Your task to perform on an android device: Search for the new iphone 13 pro on Etsy. Image 0: 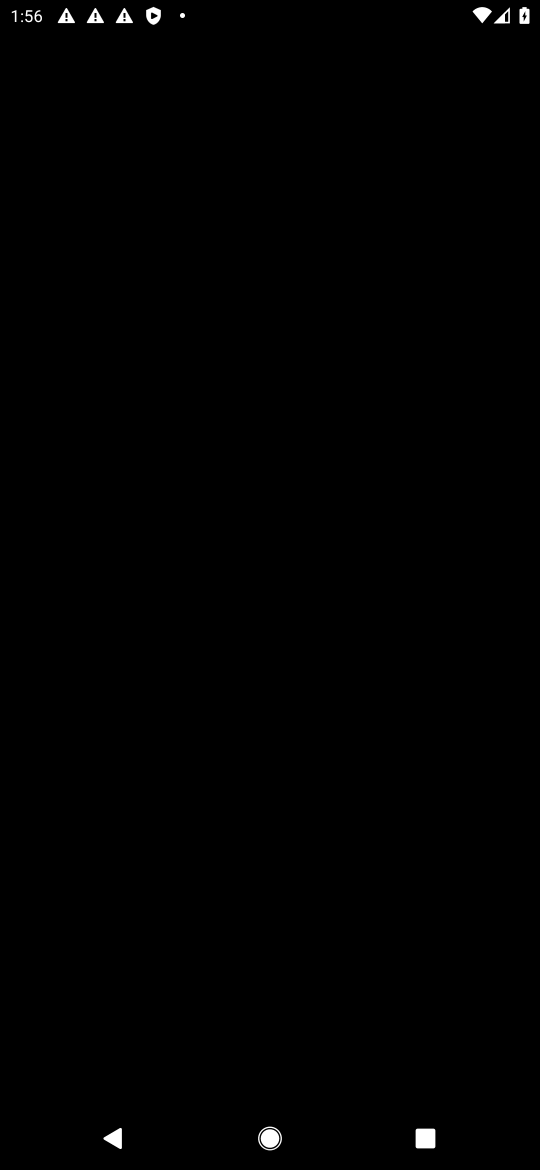
Step 0: press home button
Your task to perform on an android device: Search for the new iphone 13 pro on Etsy. Image 1: 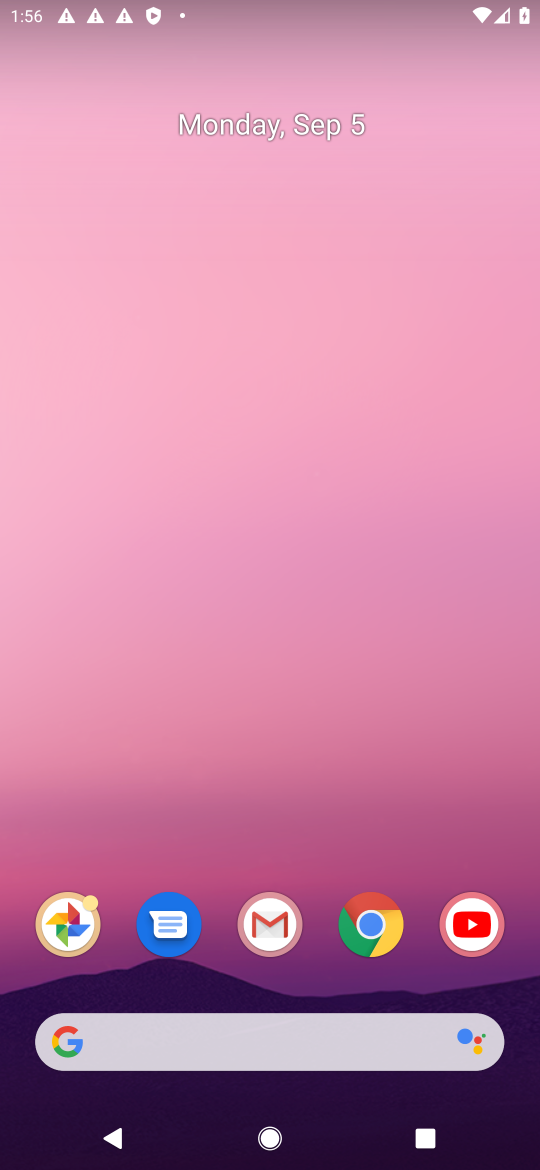
Step 1: click (372, 952)
Your task to perform on an android device: Search for the new iphone 13 pro on Etsy. Image 2: 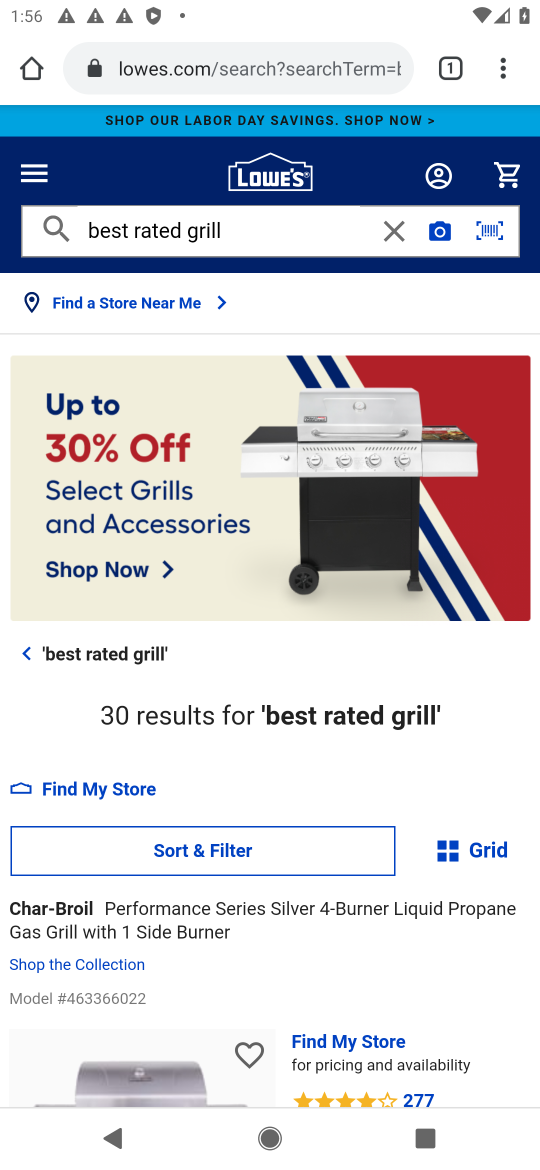
Step 2: click (377, 61)
Your task to perform on an android device: Search for the new iphone 13 pro on Etsy. Image 3: 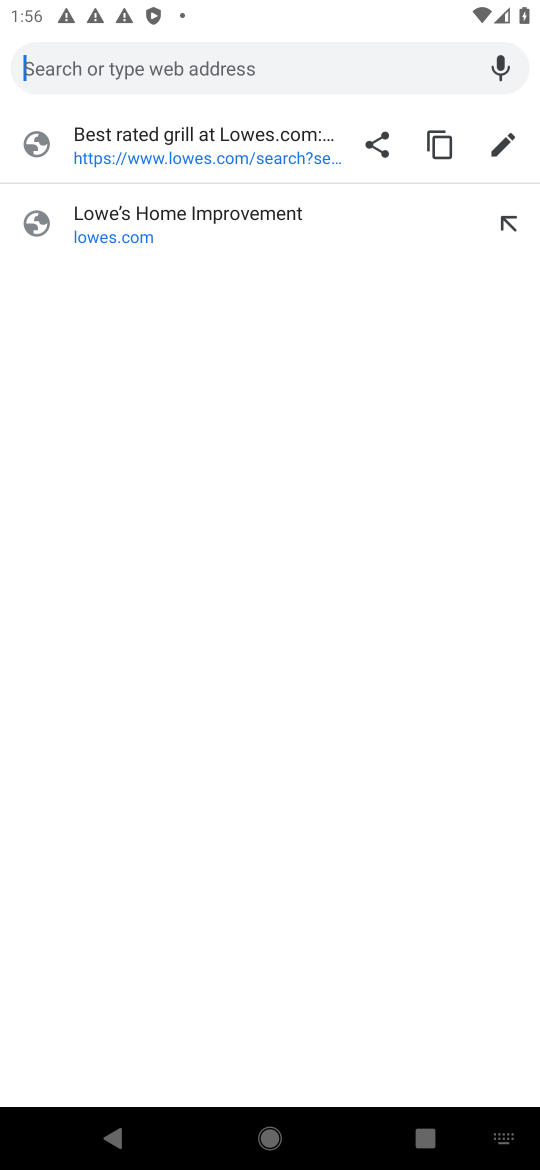
Step 3: type "Etsy"
Your task to perform on an android device: Search for the new iphone 13 pro on Etsy. Image 4: 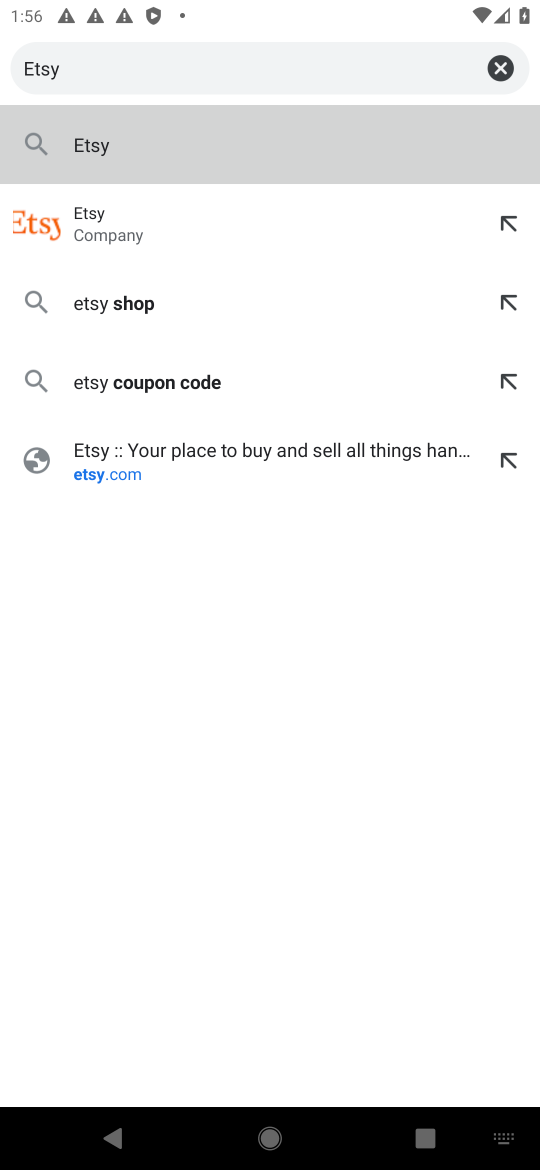
Step 4: click (54, 243)
Your task to perform on an android device: Search for the new iphone 13 pro on Etsy. Image 5: 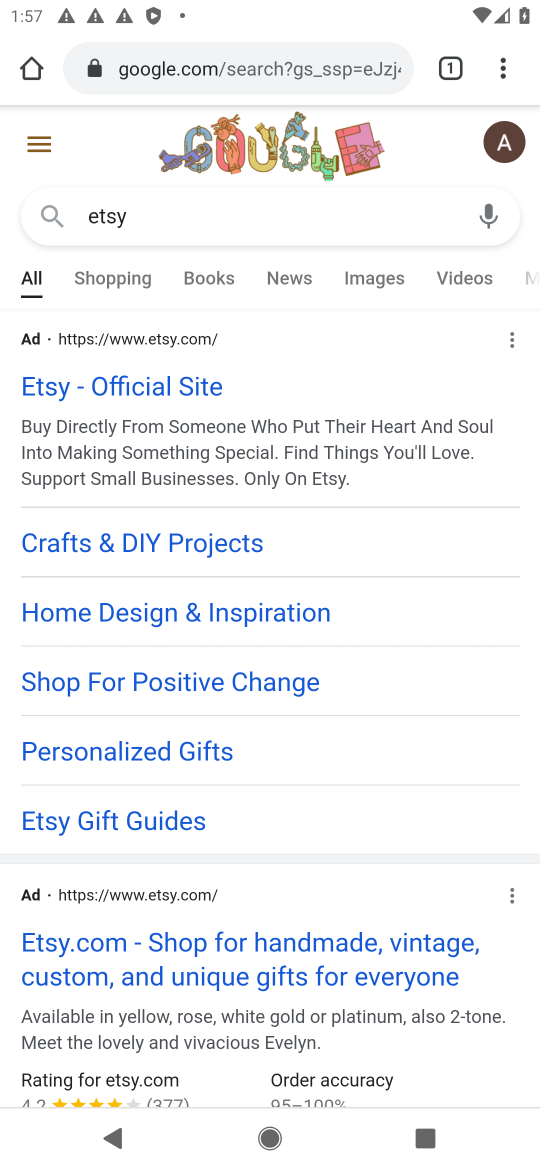
Step 5: drag from (192, 620) to (212, 503)
Your task to perform on an android device: Search for the new iphone 13 pro on Etsy. Image 6: 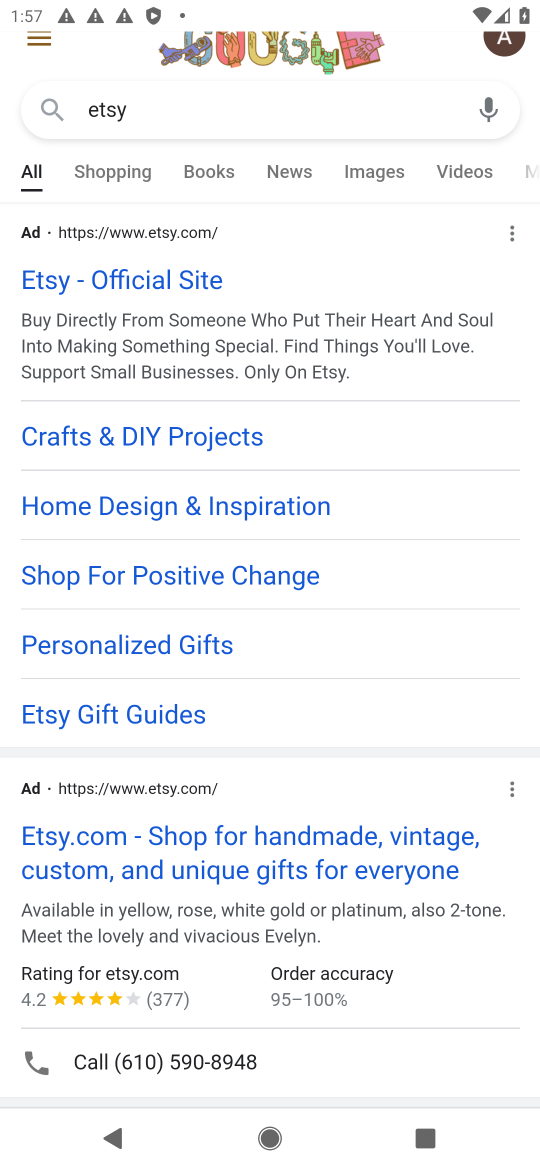
Step 6: drag from (182, 880) to (241, 522)
Your task to perform on an android device: Search for the new iphone 13 pro on Etsy. Image 7: 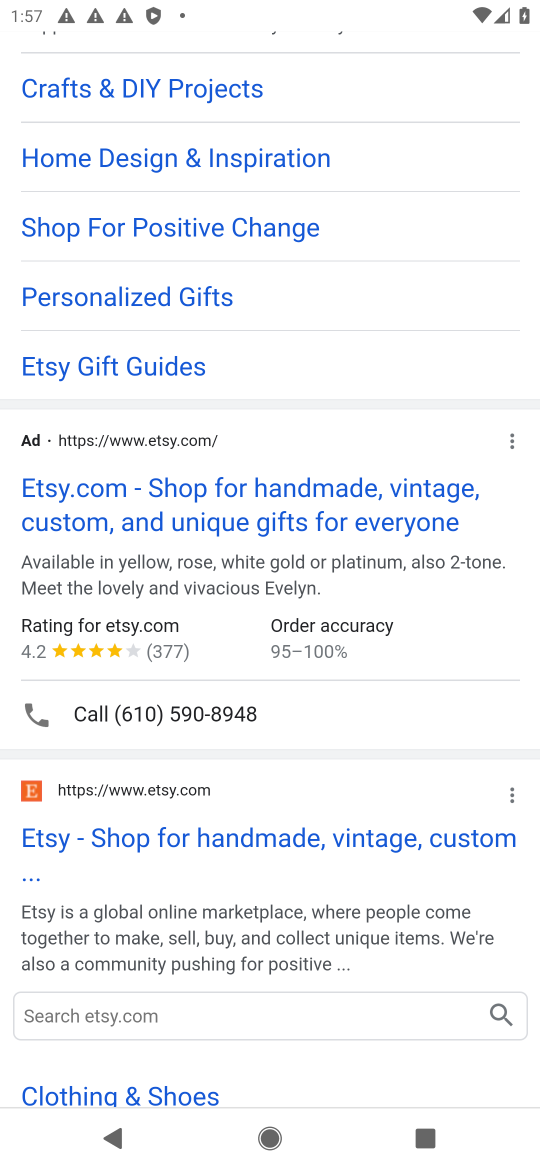
Step 7: click (206, 838)
Your task to perform on an android device: Search for the new iphone 13 pro on Etsy. Image 8: 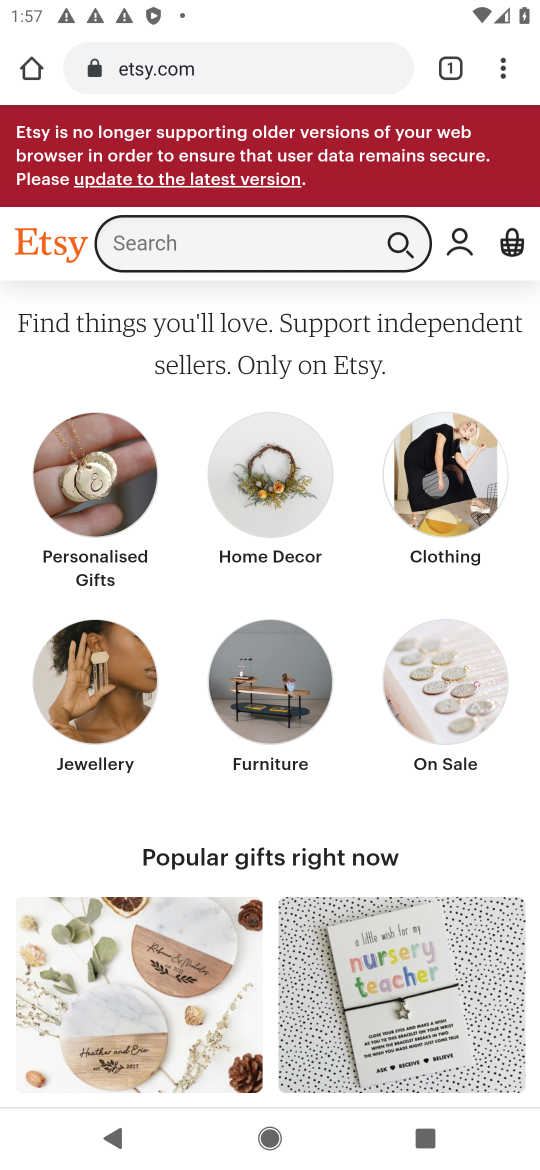
Step 8: click (252, 247)
Your task to perform on an android device: Search for the new iphone 13 pro on Etsy. Image 9: 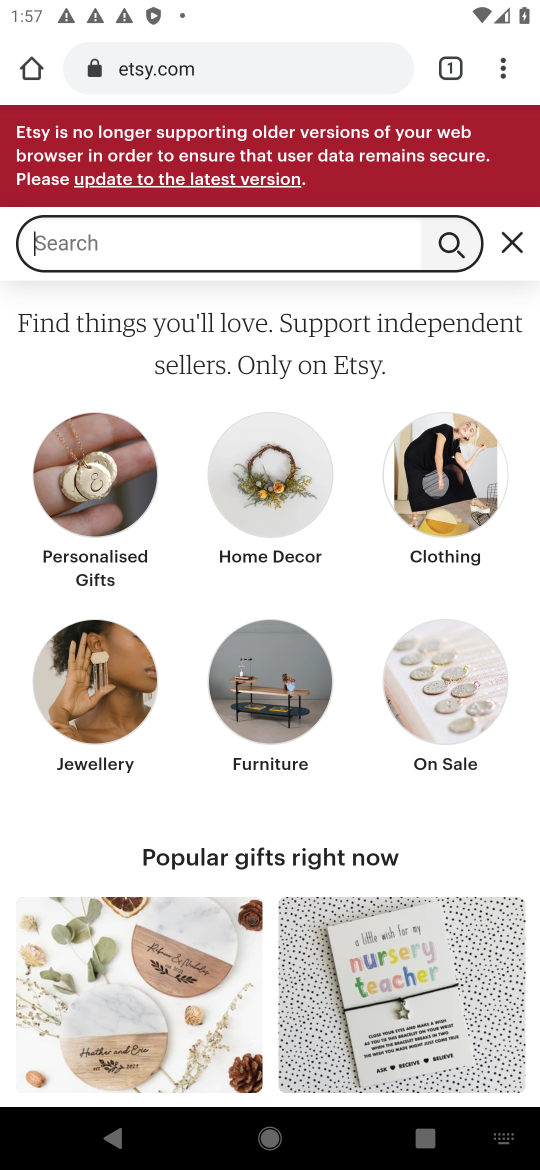
Step 9: type "new iphone 13 pro"
Your task to perform on an android device: Search for the new iphone 13 pro on Etsy. Image 10: 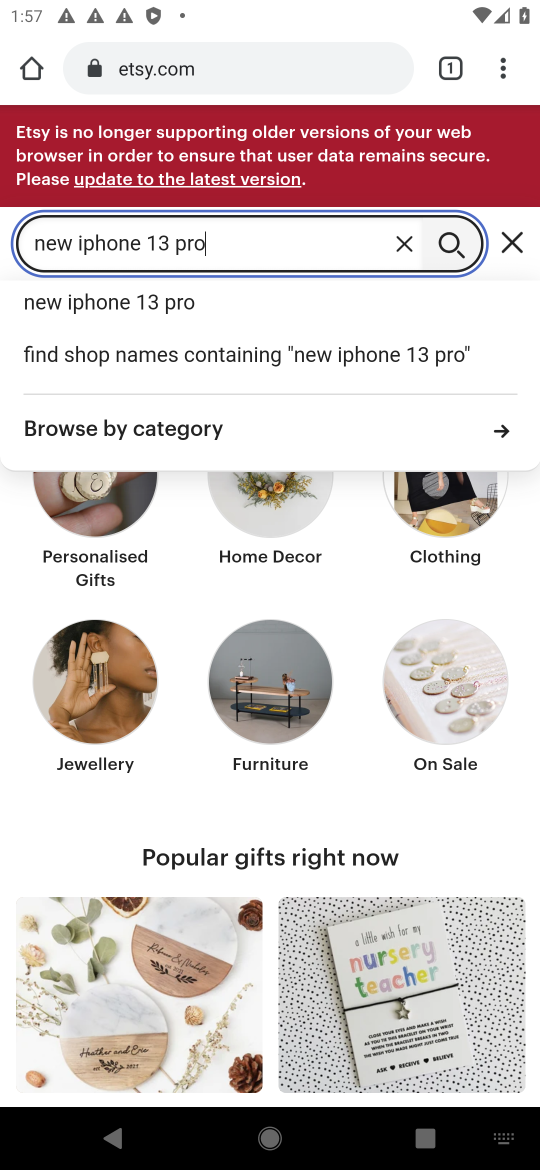
Step 10: click (212, 307)
Your task to perform on an android device: Search for the new iphone 13 pro on Etsy. Image 11: 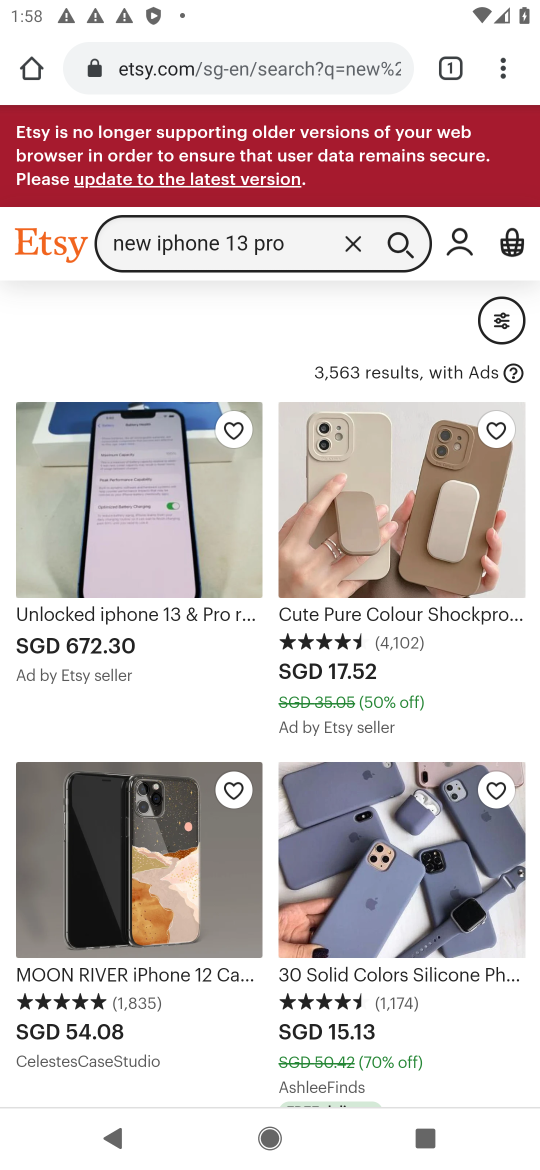
Step 11: task complete